Your task to perform on an android device: set the stopwatch Image 0: 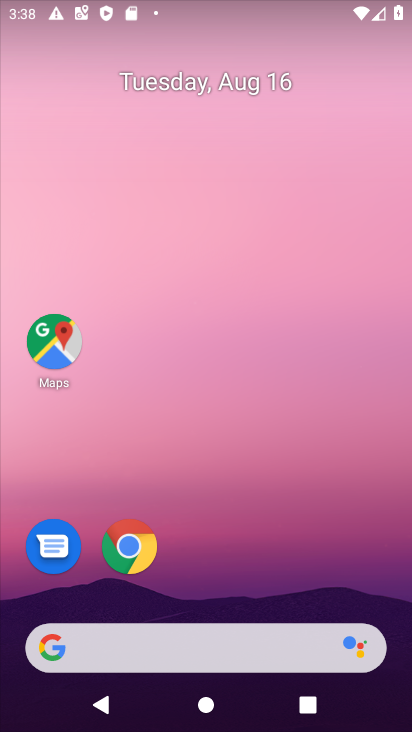
Step 0: press home button
Your task to perform on an android device: set the stopwatch Image 1: 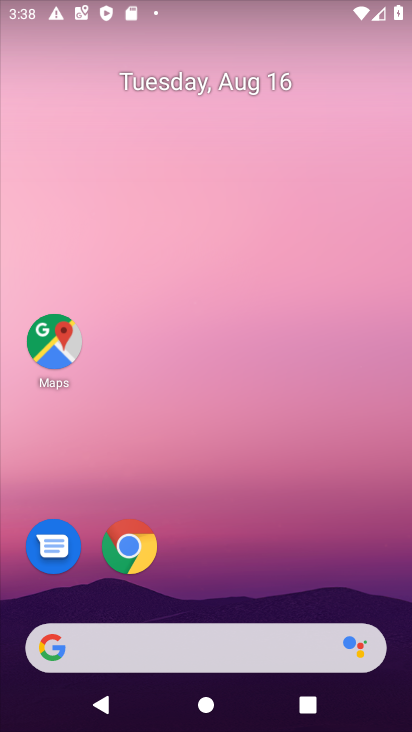
Step 1: drag from (343, 582) to (348, 167)
Your task to perform on an android device: set the stopwatch Image 2: 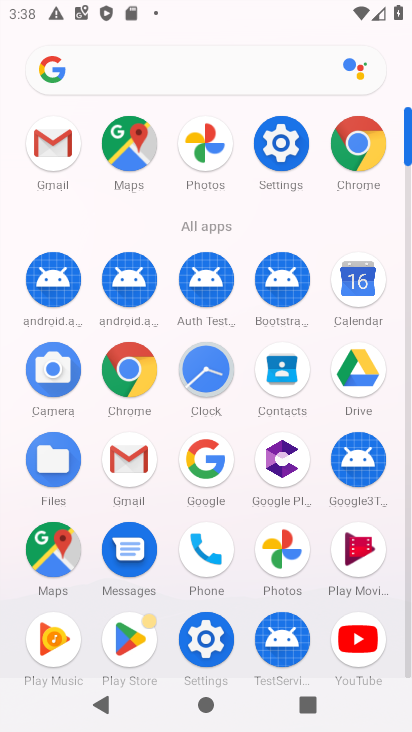
Step 2: click (206, 372)
Your task to perform on an android device: set the stopwatch Image 3: 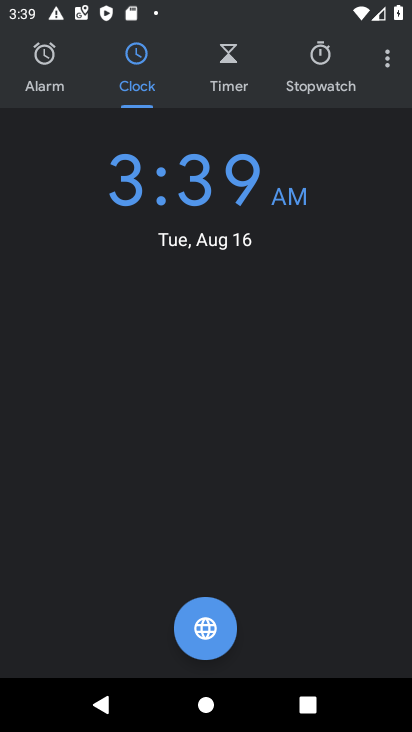
Step 3: click (319, 69)
Your task to perform on an android device: set the stopwatch Image 4: 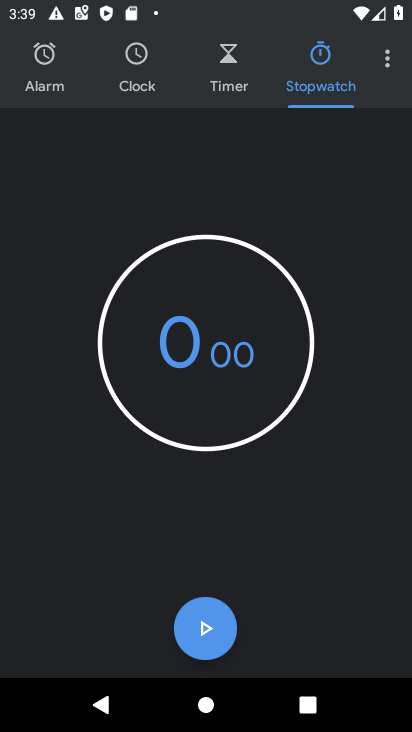
Step 4: click (204, 632)
Your task to perform on an android device: set the stopwatch Image 5: 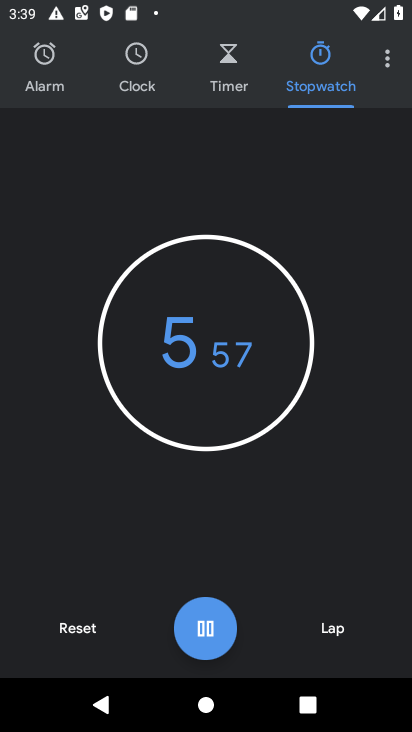
Step 5: task complete